Your task to perform on an android device: Clear the shopping cart on costco. Search for razer blackwidow on costco, select the first entry, add it to the cart, then select checkout. Image 0: 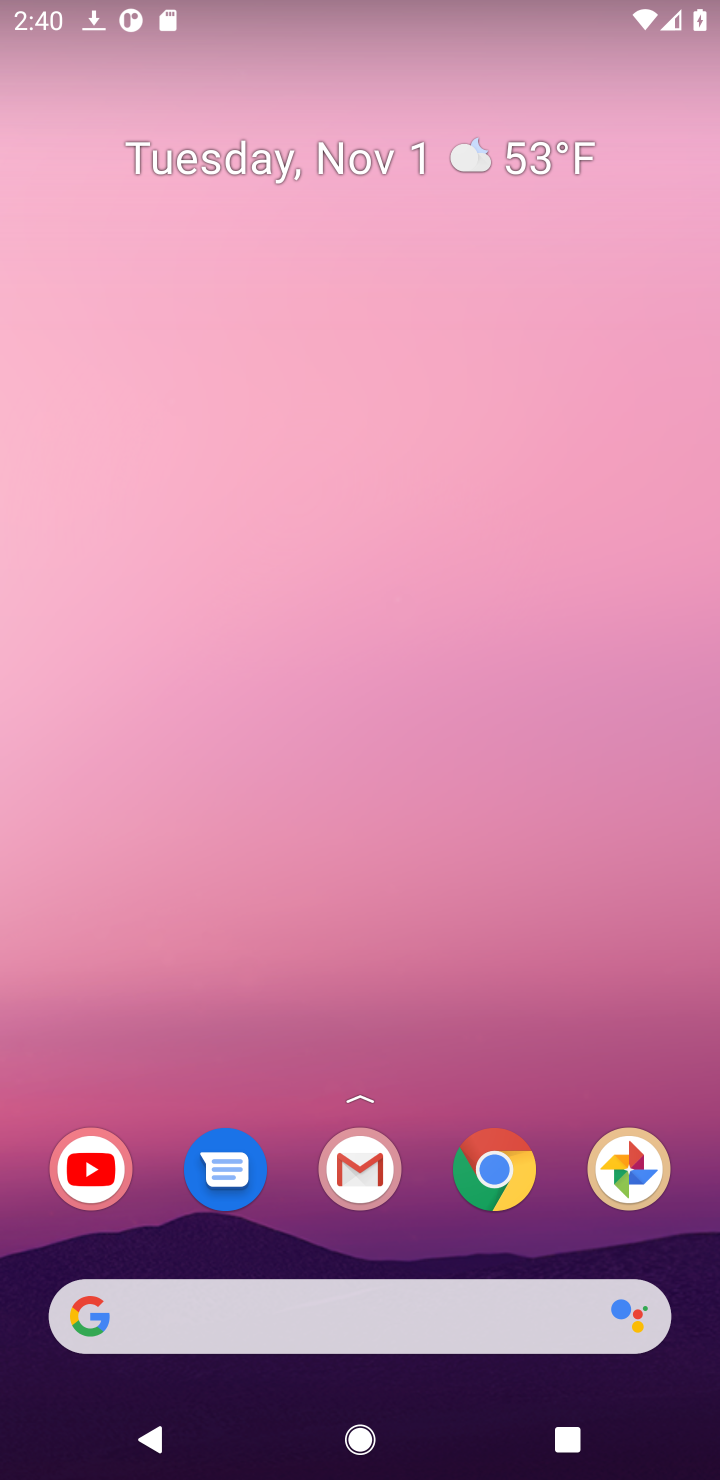
Step 0: press home button
Your task to perform on an android device: Clear the shopping cart on costco. Search for razer blackwidow on costco, select the first entry, add it to the cart, then select checkout. Image 1: 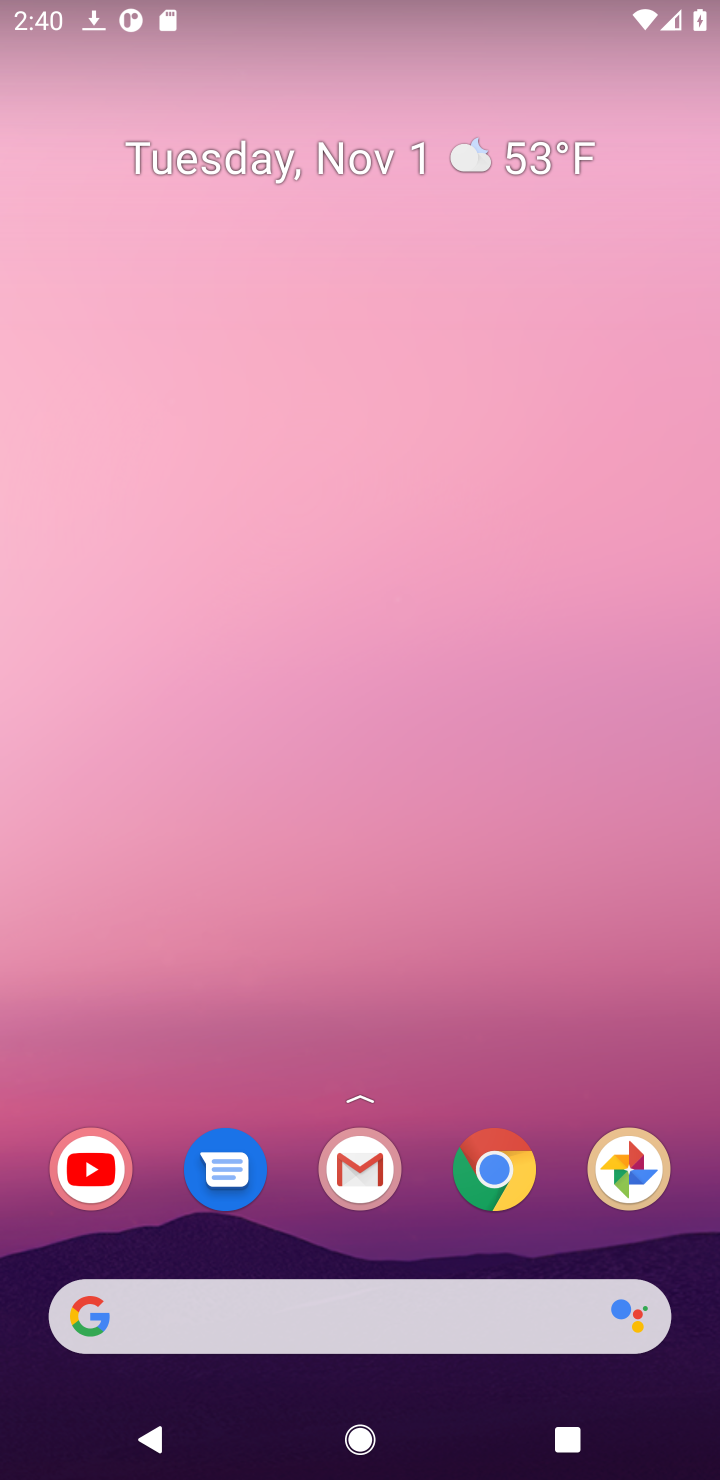
Step 1: drag from (423, 1089) to (425, 73)
Your task to perform on an android device: Clear the shopping cart on costco. Search for razer blackwidow on costco, select the first entry, add it to the cart, then select checkout. Image 2: 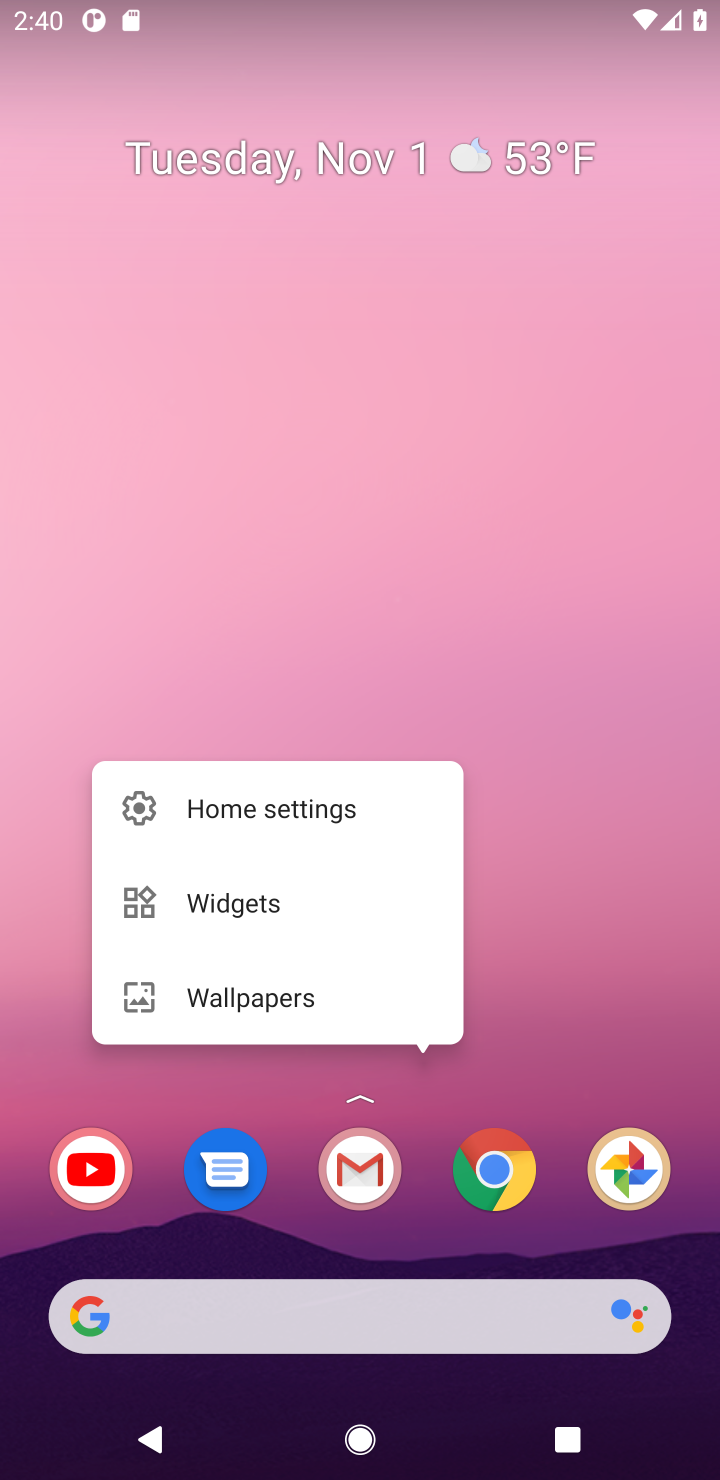
Step 2: drag from (422, 1101) to (456, 132)
Your task to perform on an android device: Clear the shopping cart on costco. Search for razer blackwidow on costco, select the first entry, add it to the cart, then select checkout. Image 3: 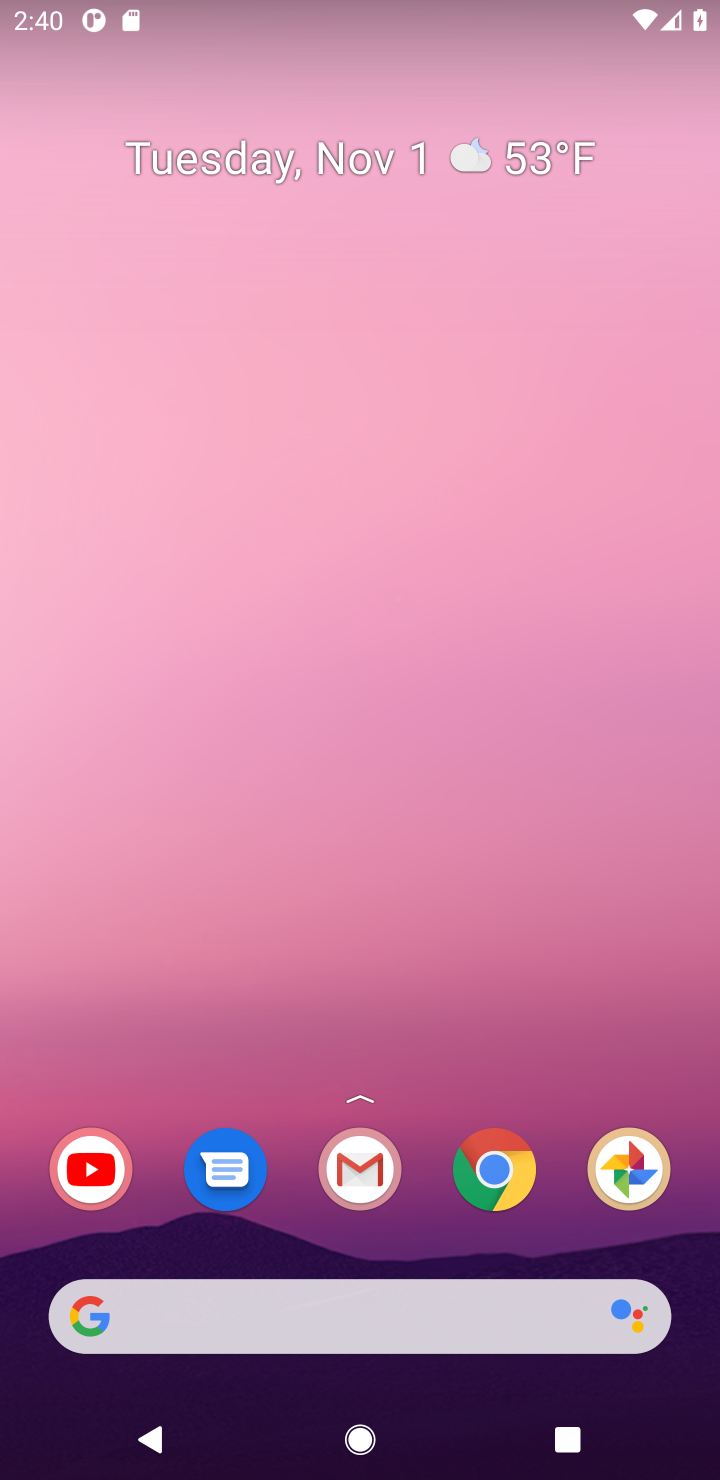
Step 3: click (556, 1022)
Your task to perform on an android device: Clear the shopping cart on costco. Search for razer blackwidow on costco, select the first entry, add it to the cart, then select checkout. Image 4: 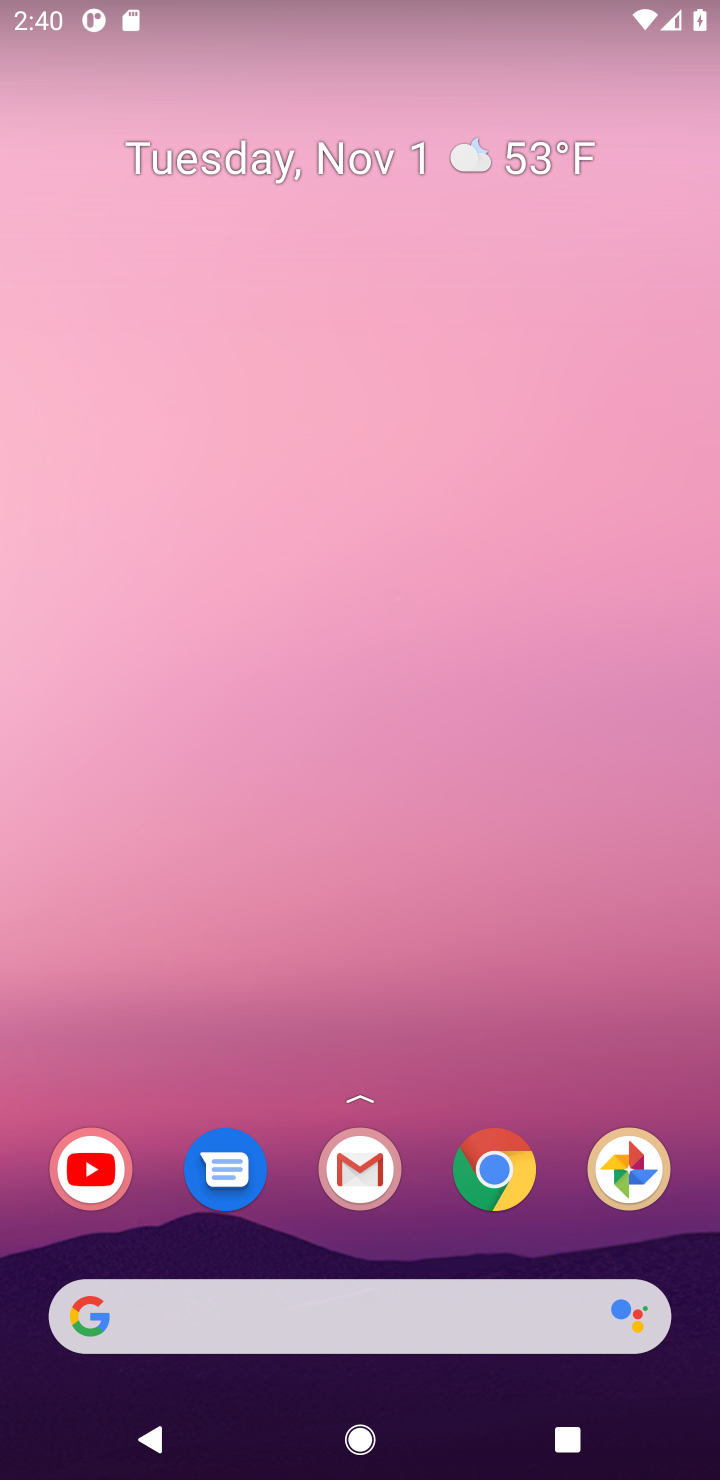
Step 4: drag from (453, 929) to (480, 84)
Your task to perform on an android device: Clear the shopping cart on costco. Search for razer blackwidow on costco, select the first entry, add it to the cart, then select checkout. Image 5: 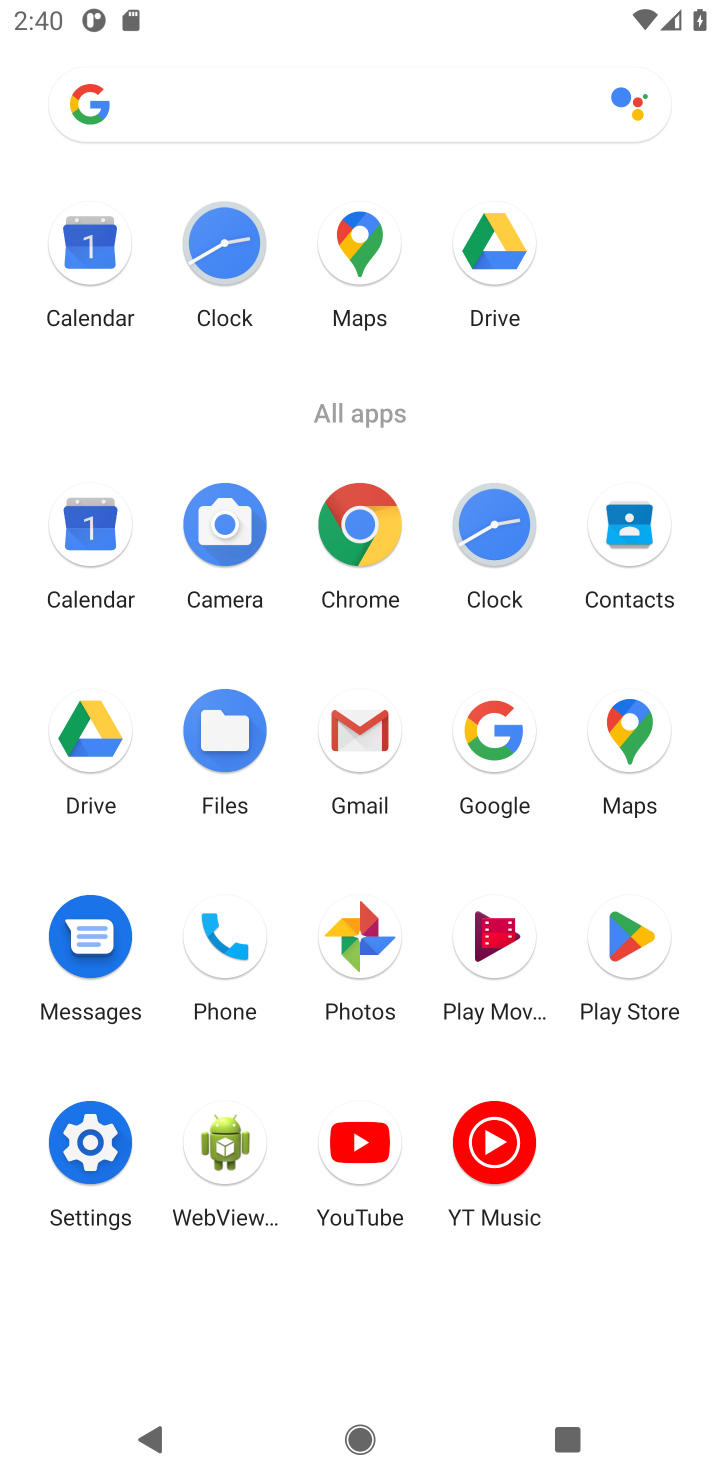
Step 5: click (363, 525)
Your task to perform on an android device: Clear the shopping cart on costco. Search for razer blackwidow on costco, select the first entry, add it to the cart, then select checkout. Image 6: 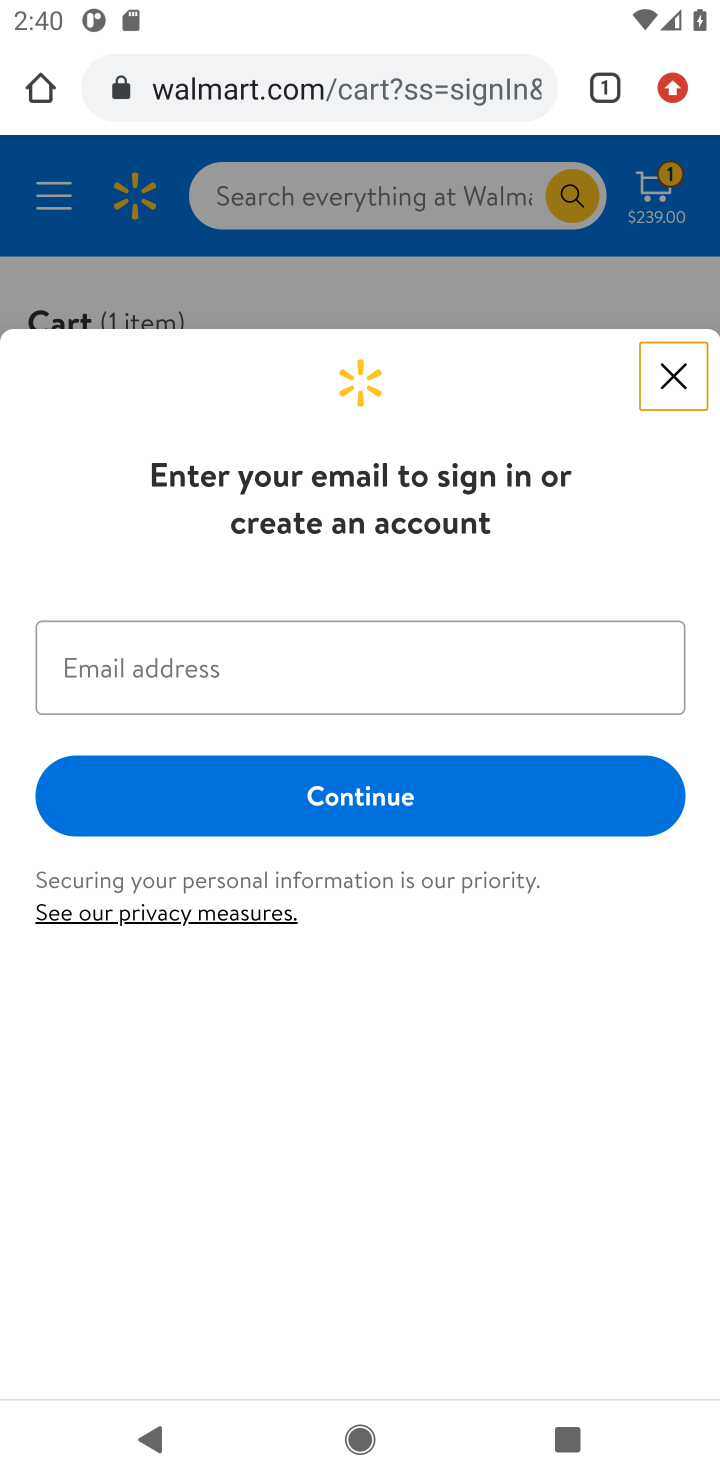
Step 6: click (239, 88)
Your task to perform on an android device: Clear the shopping cart on costco. Search for razer blackwidow on costco, select the first entry, add it to the cart, then select checkout. Image 7: 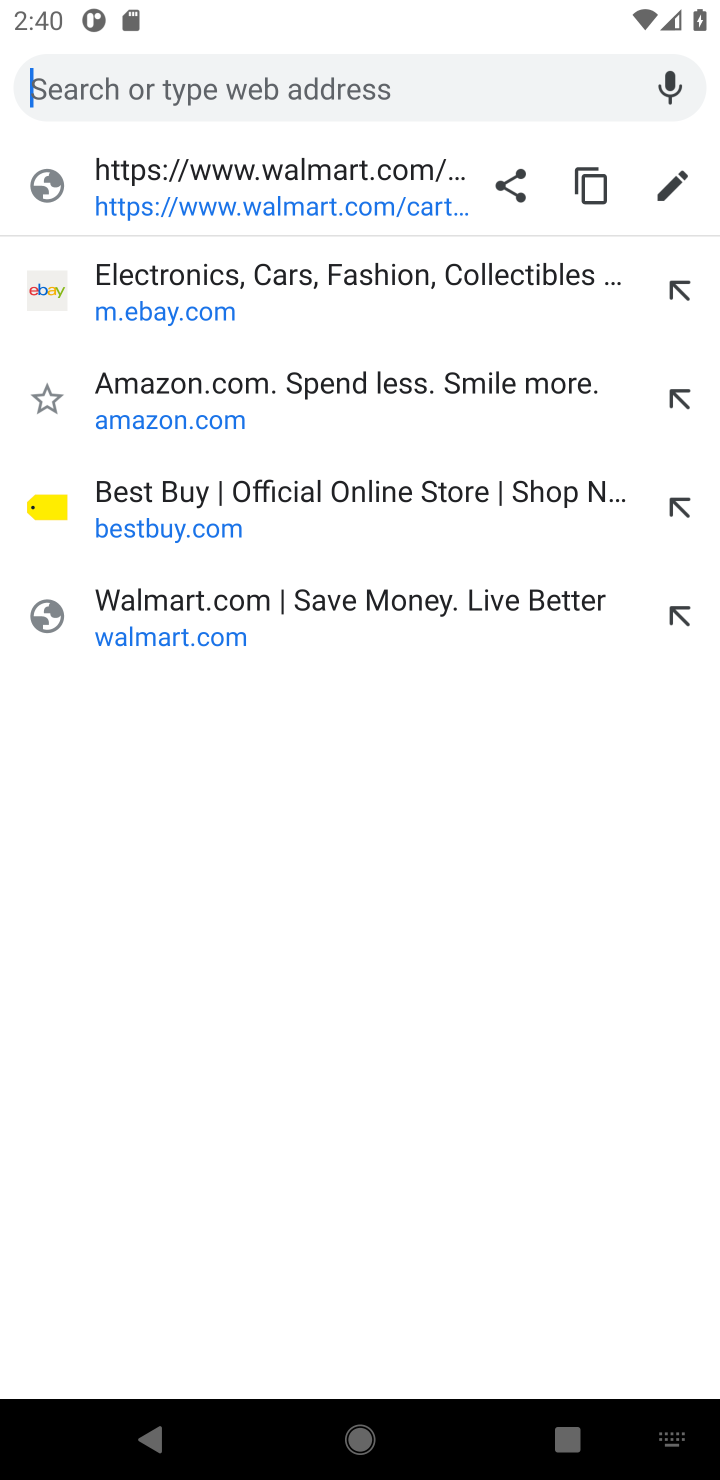
Step 7: type "costco"
Your task to perform on an android device: Clear the shopping cart on costco. Search for razer blackwidow on costco, select the first entry, add it to the cart, then select checkout. Image 8: 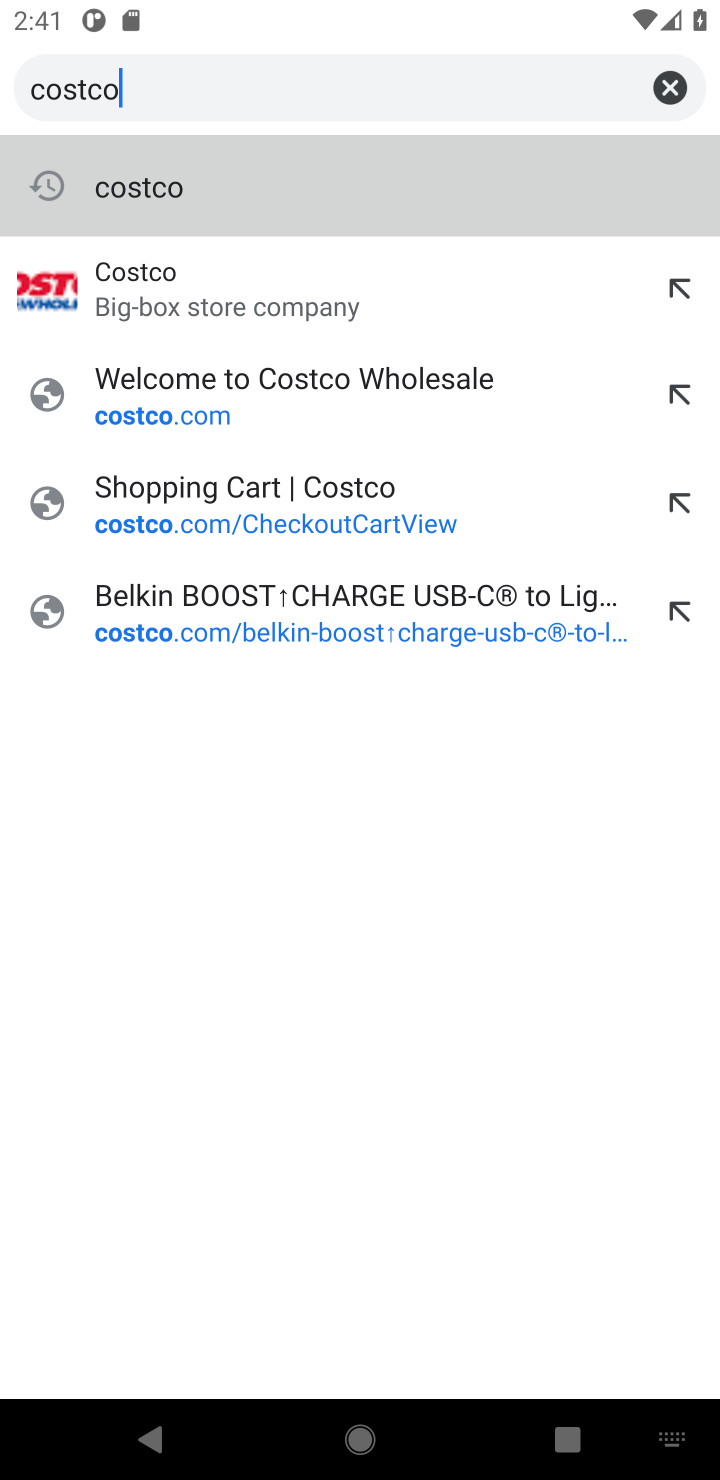
Step 8: click (198, 288)
Your task to perform on an android device: Clear the shopping cart on costco. Search for razer blackwidow on costco, select the first entry, add it to the cart, then select checkout. Image 9: 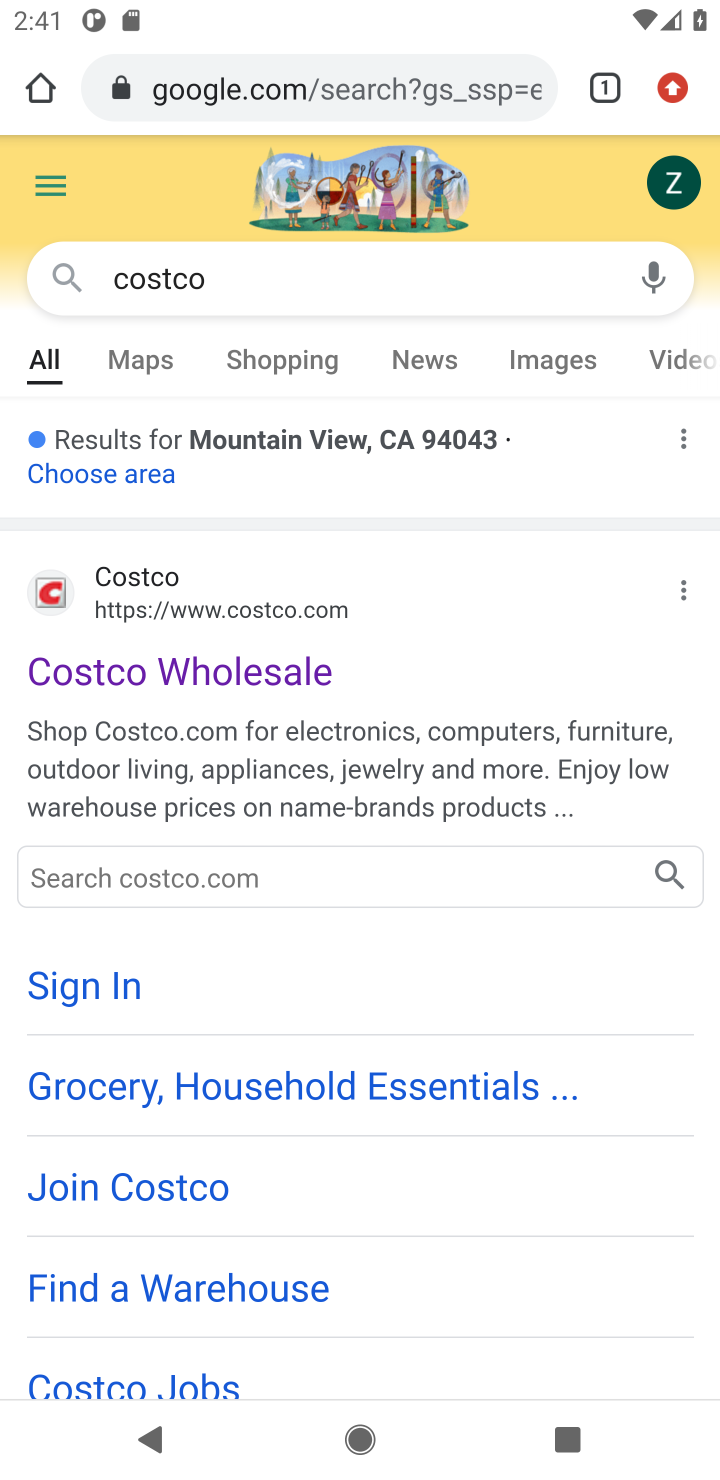
Step 9: click (199, 678)
Your task to perform on an android device: Clear the shopping cart on costco. Search for razer blackwidow on costco, select the first entry, add it to the cart, then select checkout. Image 10: 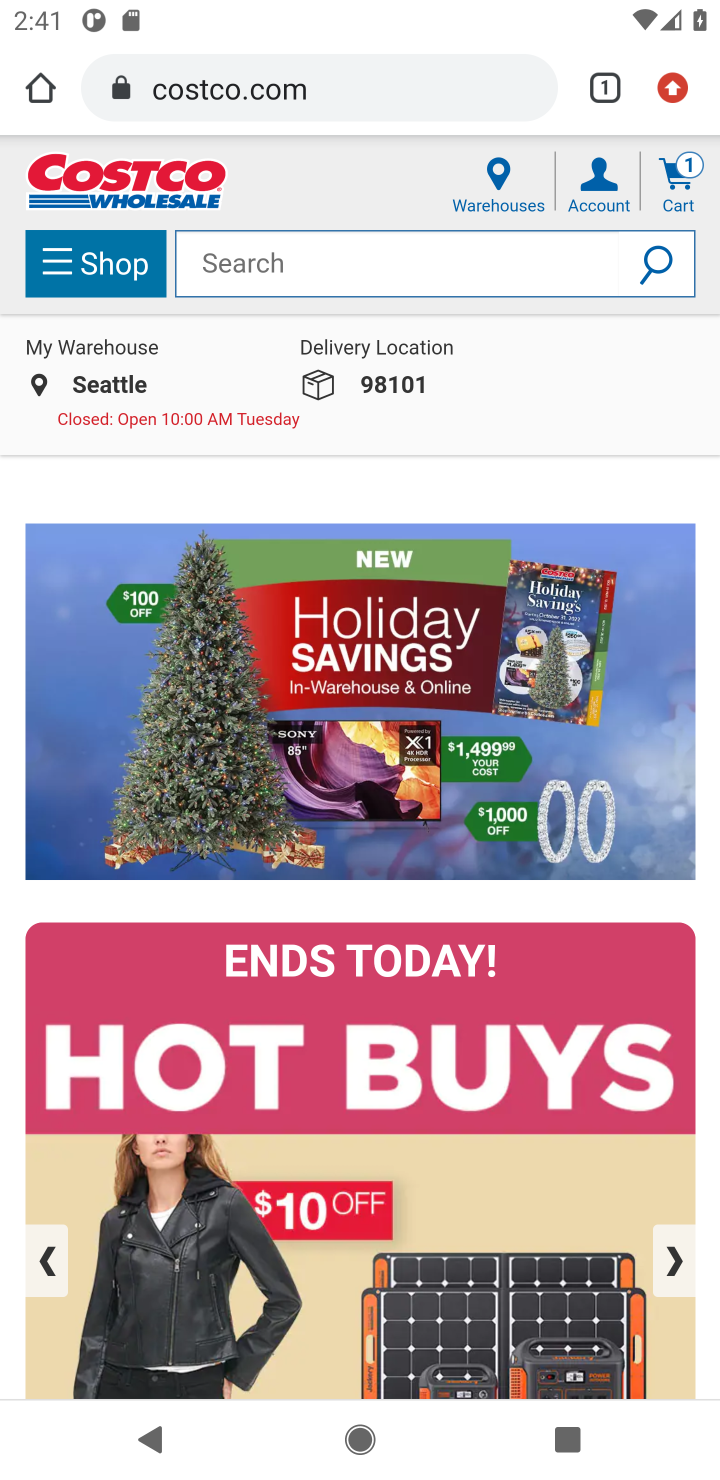
Step 10: click (316, 273)
Your task to perform on an android device: Clear the shopping cart on costco. Search for razer blackwidow on costco, select the first entry, add it to the cart, then select checkout. Image 11: 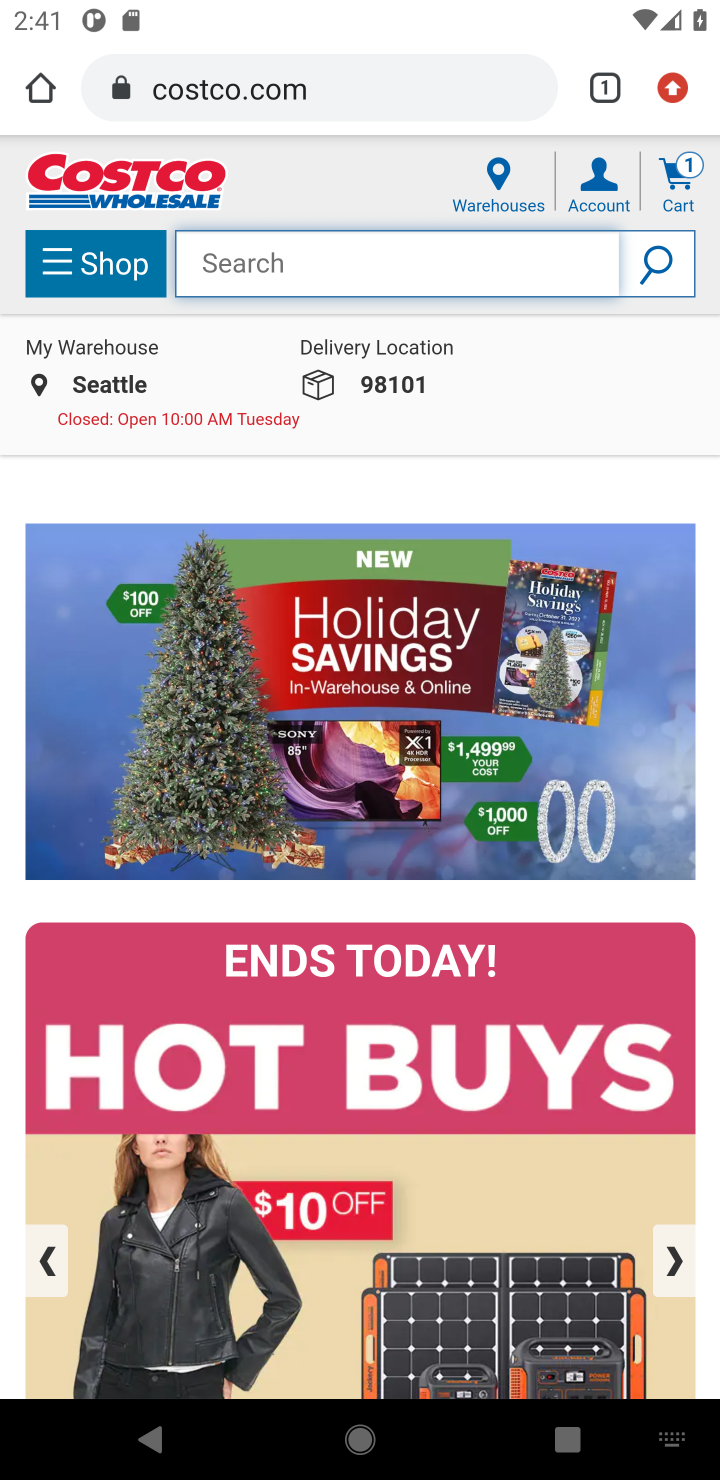
Step 11: type "razer blackwidow"
Your task to perform on an android device: Clear the shopping cart on costco. Search for razer blackwidow on costco, select the first entry, add it to the cart, then select checkout. Image 12: 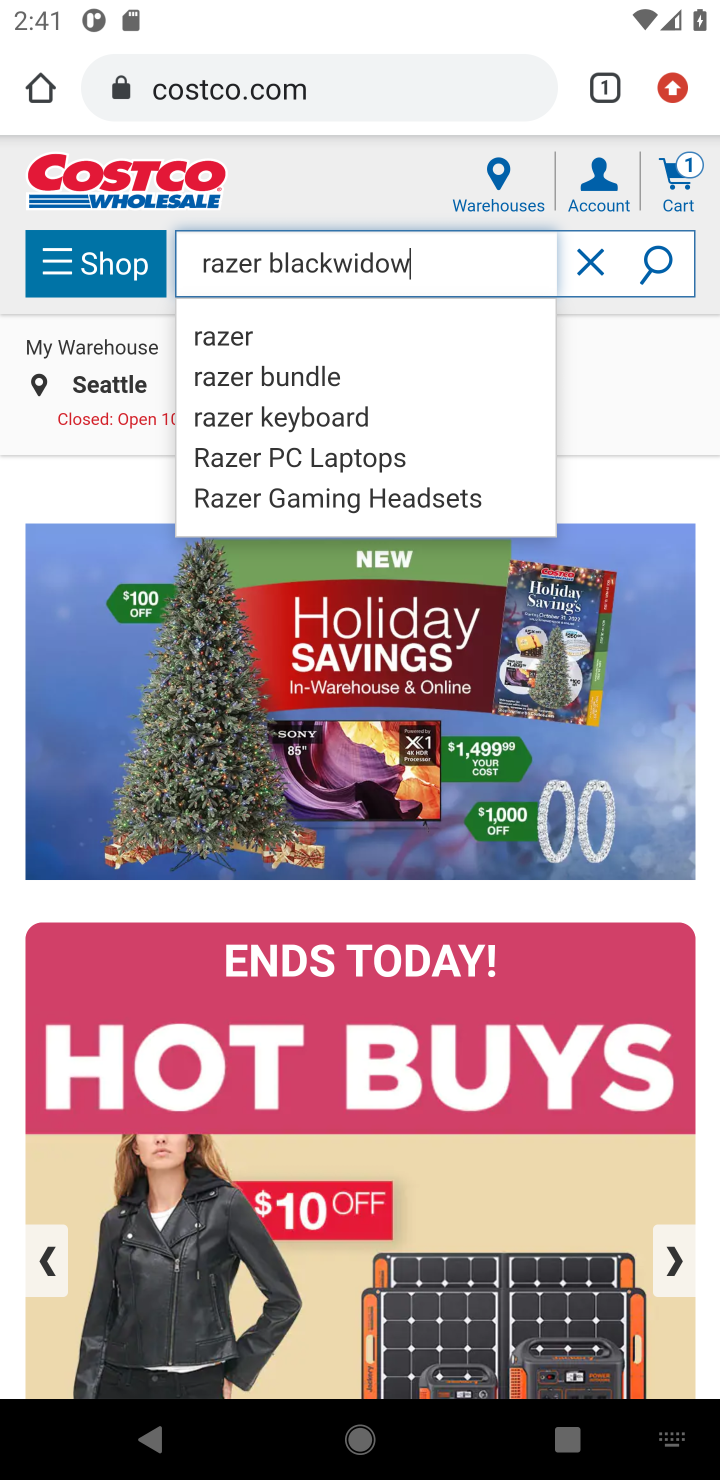
Step 12: click (256, 337)
Your task to perform on an android device: Clear the shopping cart on costco. Search for razer blackwidow on costco, select the first entry, add it to the cart, then select checkout. Image 13: 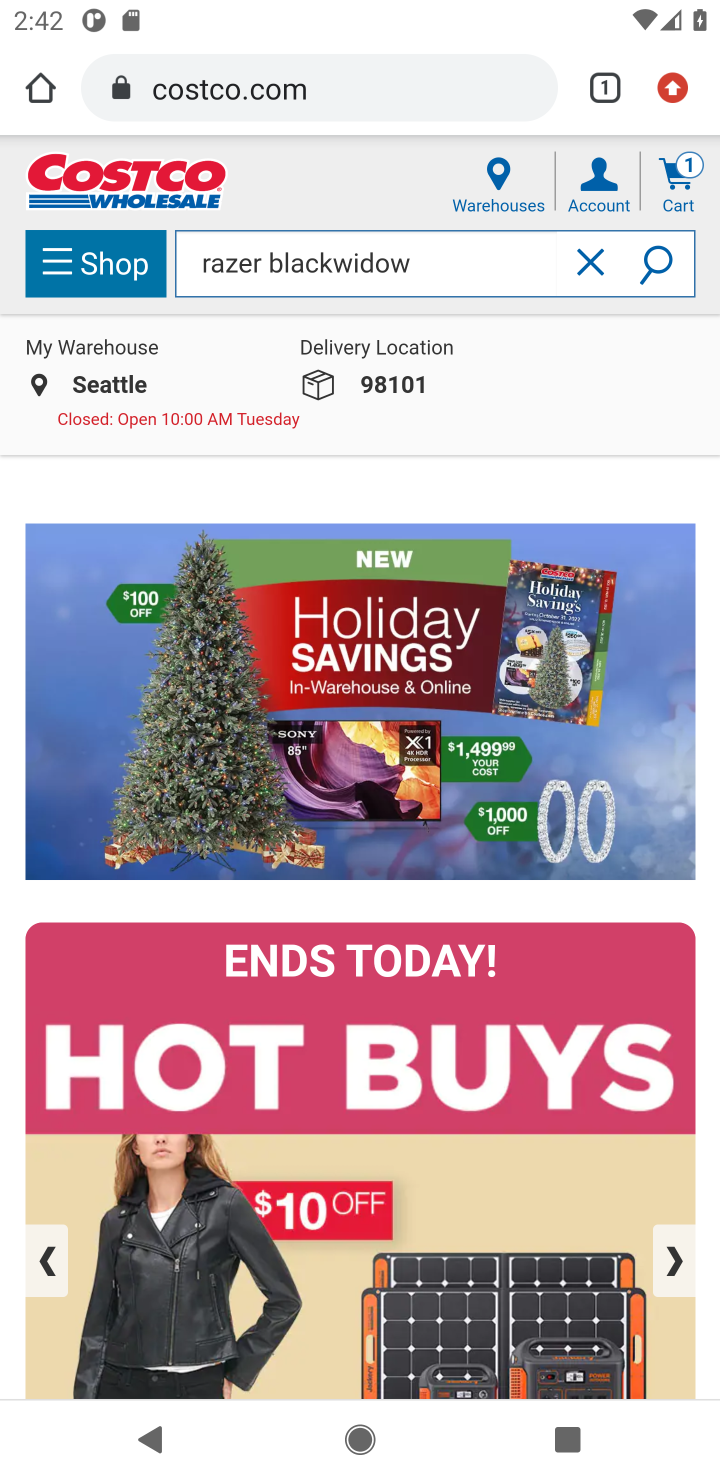
Step 13: click (665, 254)
Your task to perform on an android device: Clear the shopping cart on costco. Search for razer blackwidow on costco, select the first entry, add it to the cart, then select checkout. Image 14: 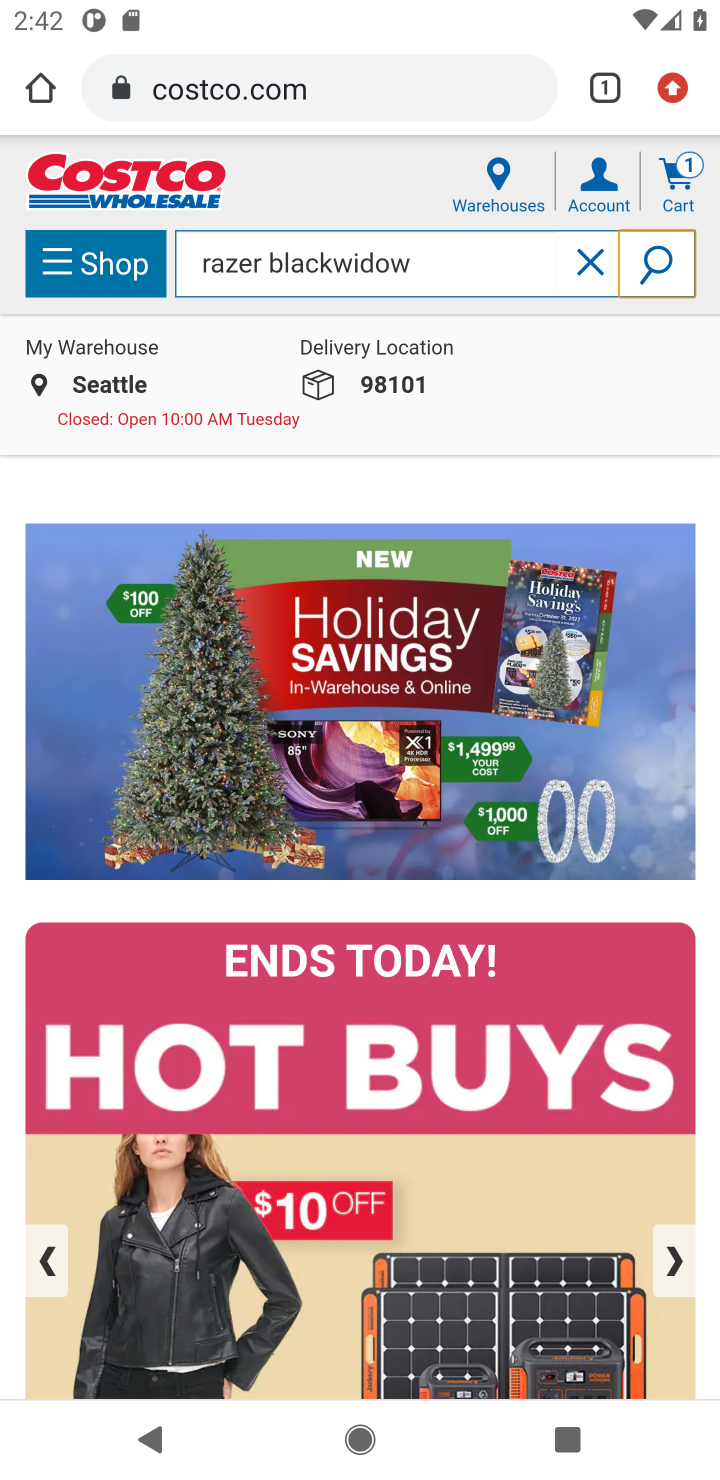
Step 14: click (666, 265)
Your task to perform on an android device: Clear the shopping cart on costco. Search for razer blackwidow on costco, select the first entry, add it to the cart, then select checkout. Image 15: 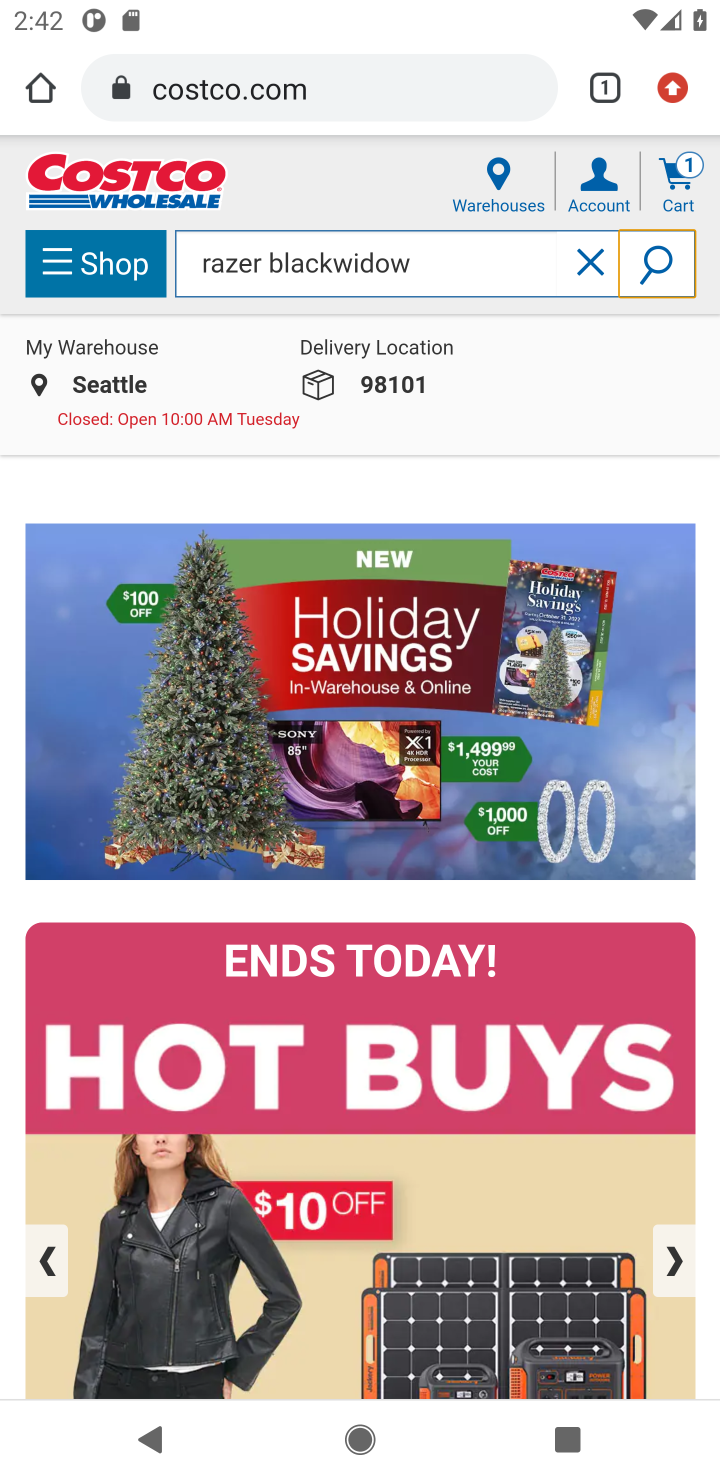
Step 15: drag from (407, 627) to (409, 170)
Your task to perform on an android device: Clear the shopping cart on costco. Search for razer blackwidow on costco, select the first entry, add it to the cart, then select checkout. Image 16: 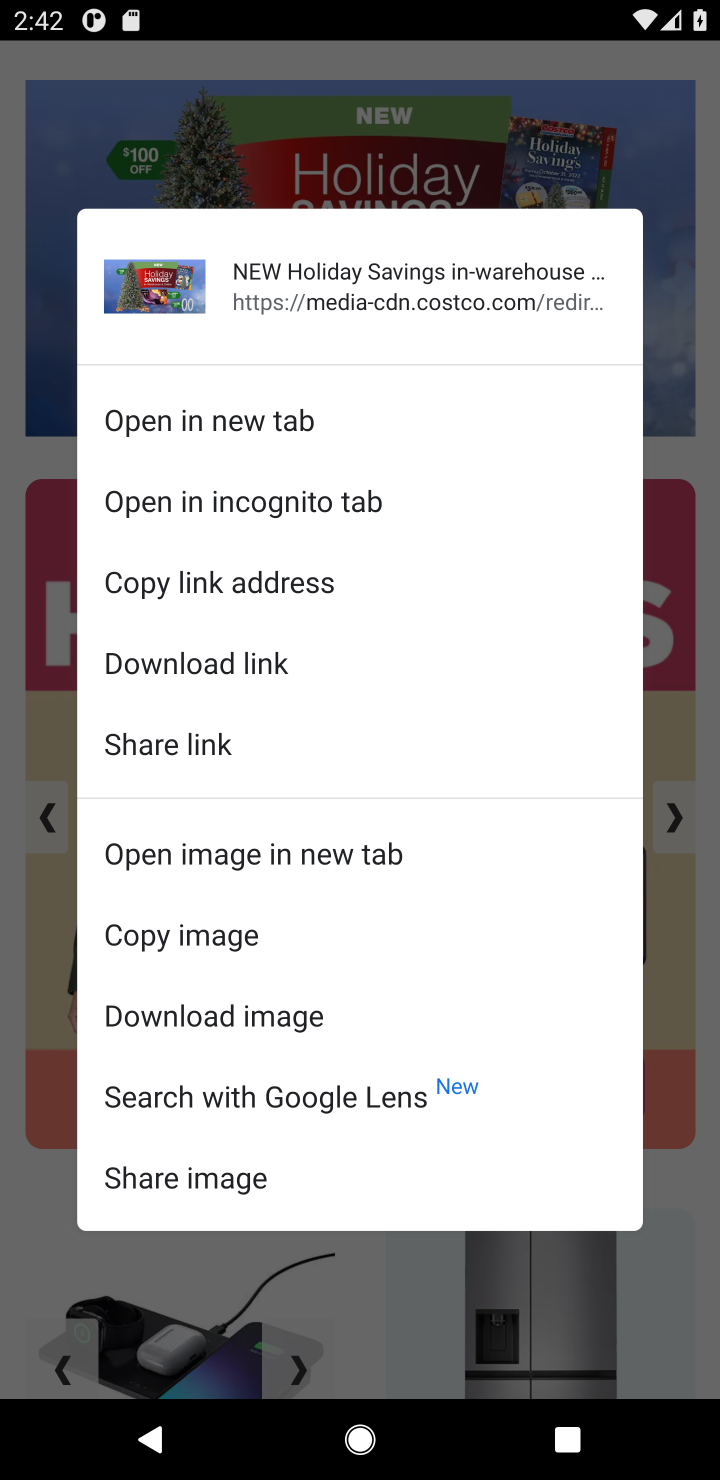
Step 16: click (25, 765)
Your task to perform on an android device: Clear the shopping cart on costco. Search for razer blackwidow on costco, select the first entry, add it to the cart, then select checkout. Image 17: 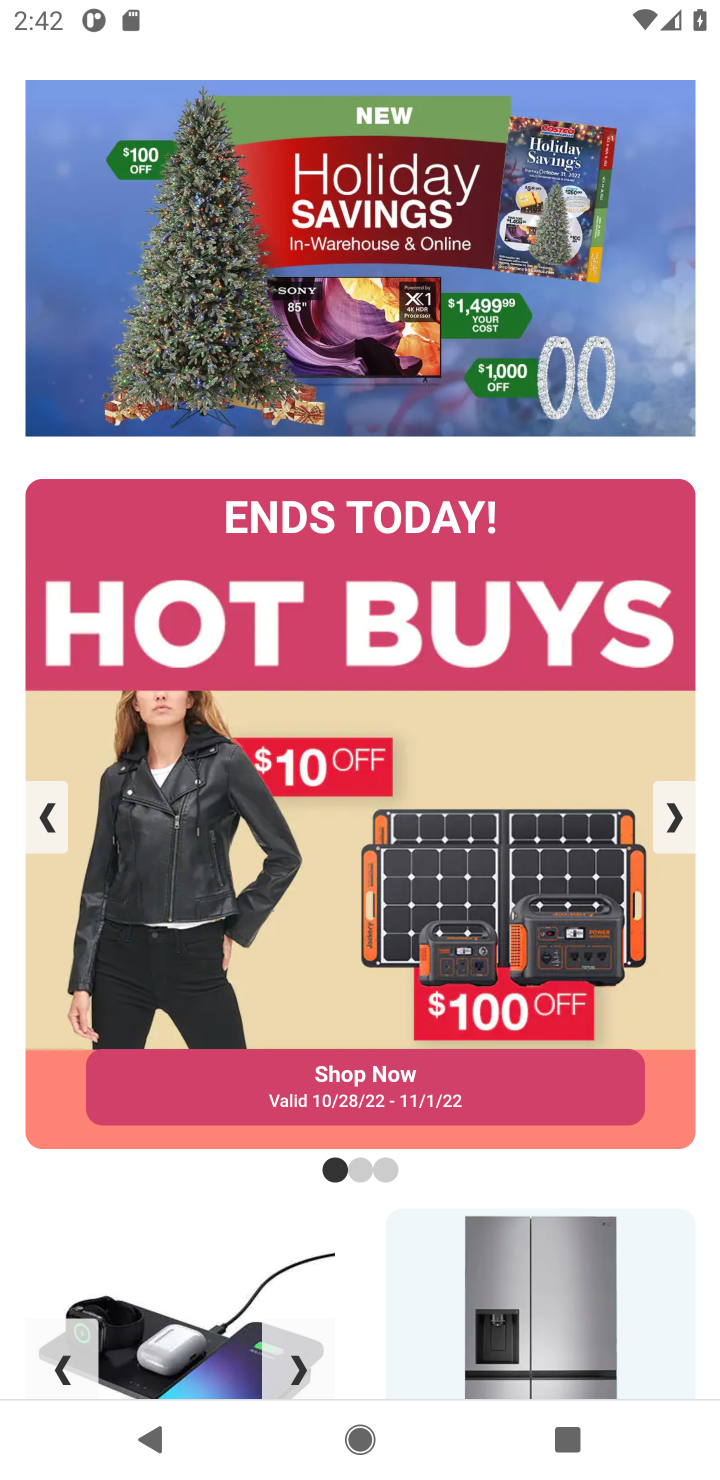
Step 17: drag from (247, 513) to (307, 1439)
Your task to perform on an android device: Clear the shopping cart on costco. Search for razer blackwidow on costco, select the first entry, add it to the cart, then select checkout. Image 18: 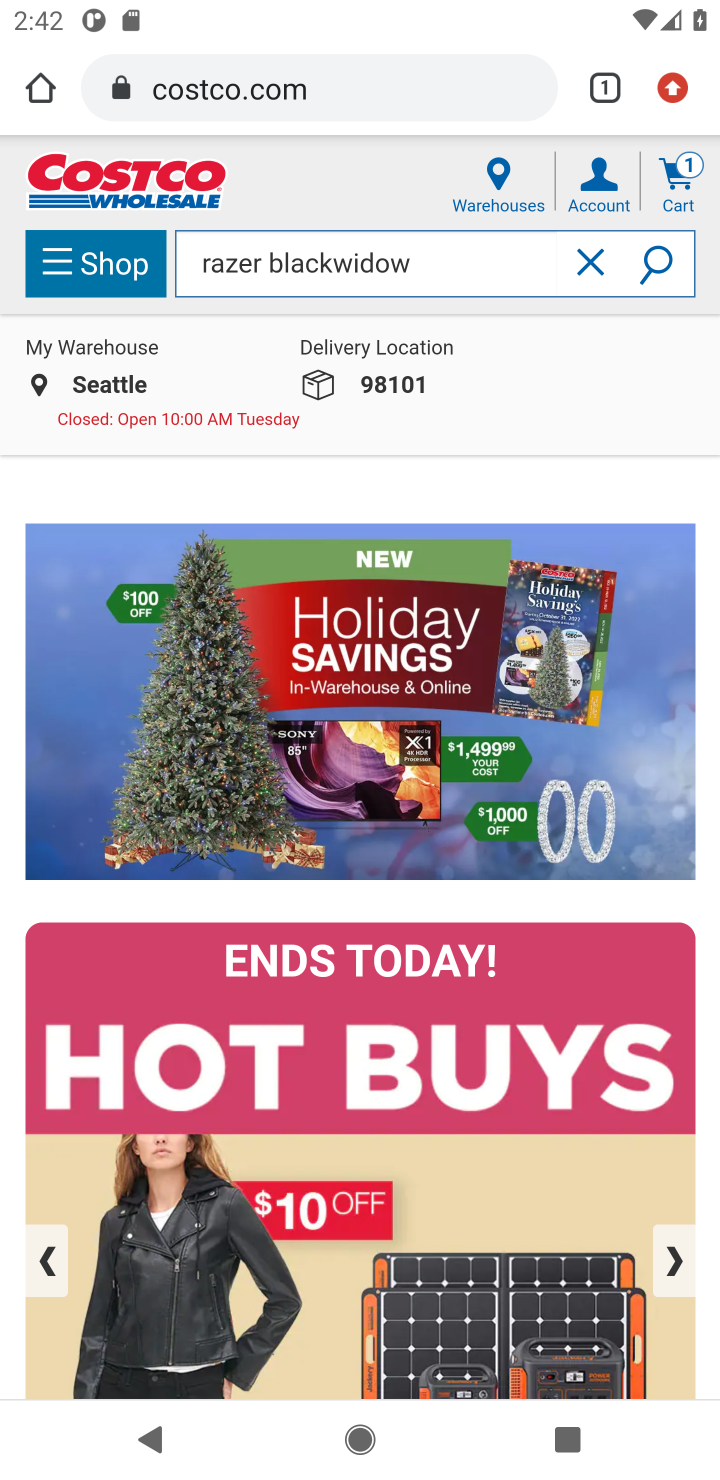
Step 18: click (665, 260)
Your task to perform on an android device: Clear the shopping cart on costco. Search for razer blackwidow on costco, select the first entry, add it to the cart, then select checkout. Image 19: 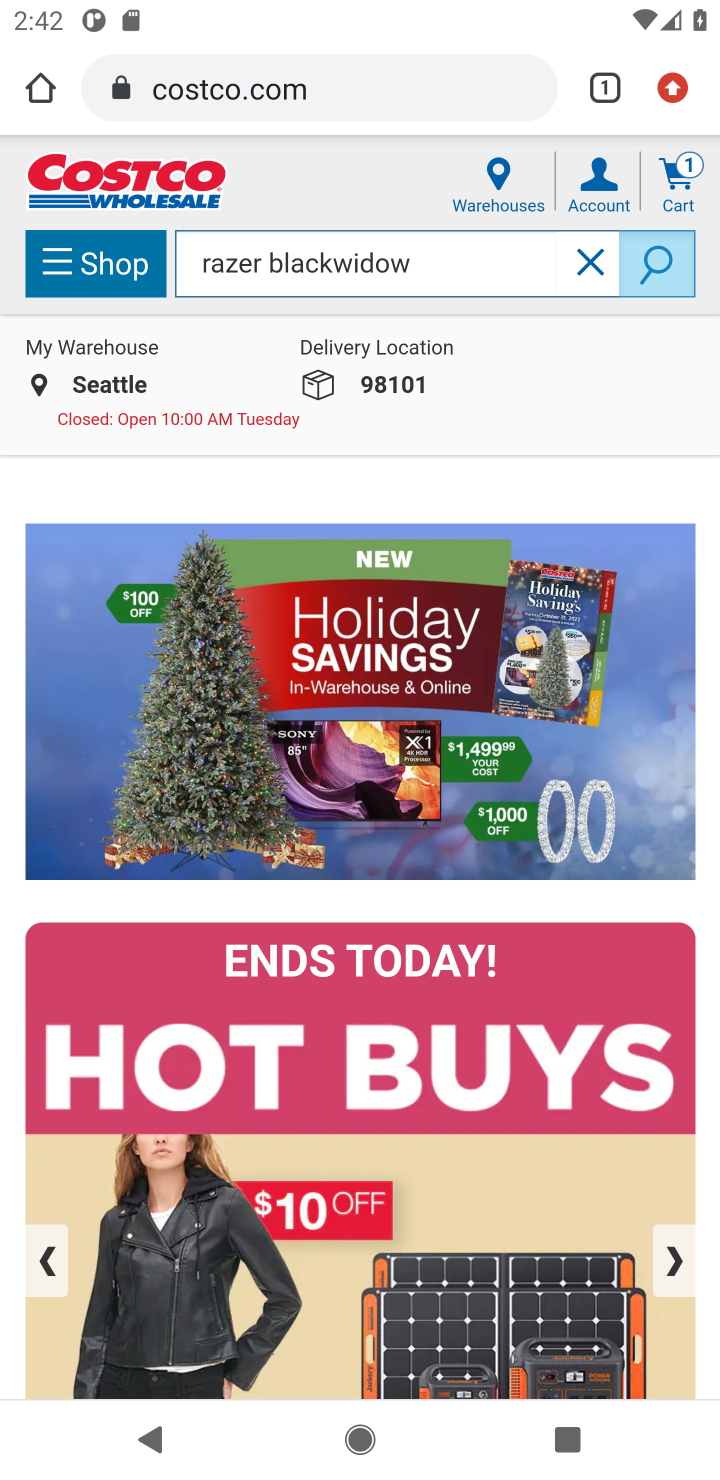
Step 19: click (665, 260)
Your task to perform on an android device: Clear the shopping cart on costco. Search for razer blackwidow on costco, select the first entry, add it to the cart, then select checkout. Image 20: 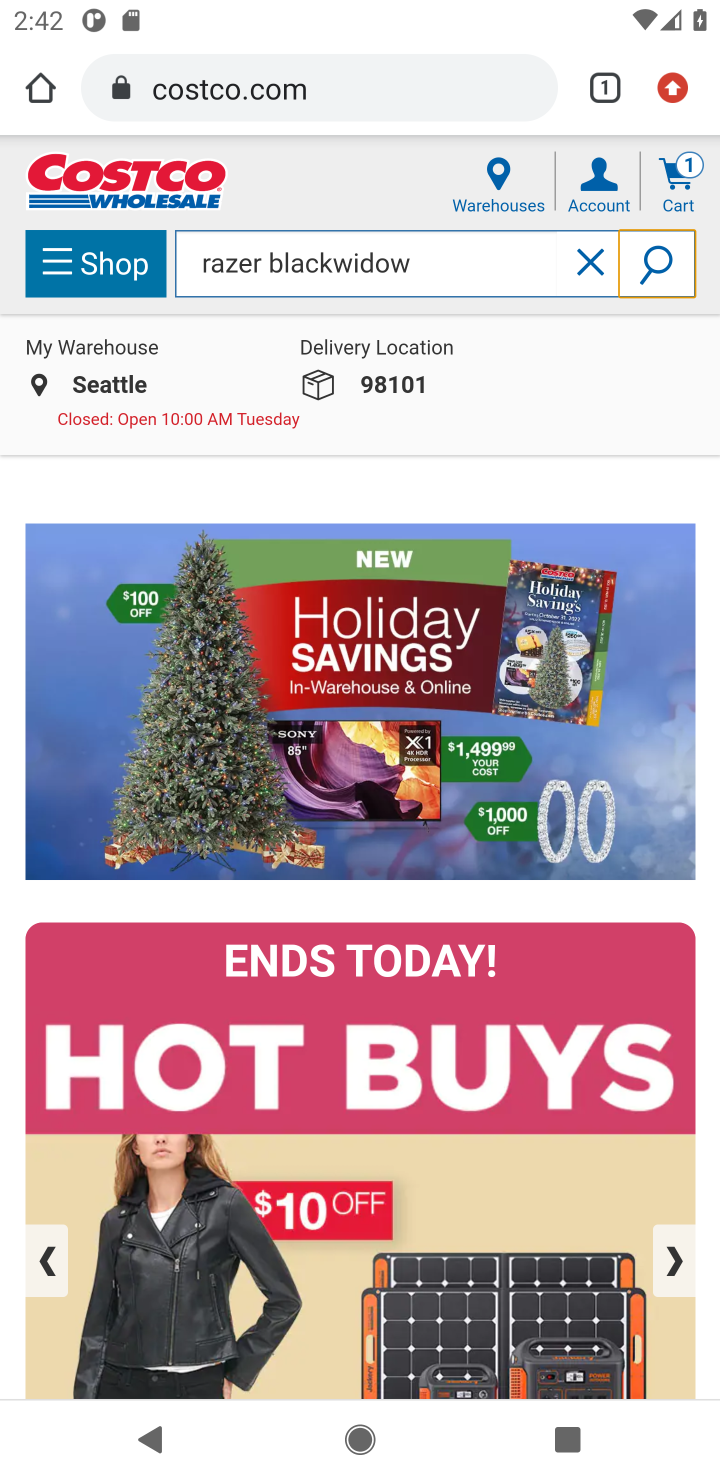
Step 20: task complete